Your task to perform on an android device: turn off sleep mode Image 0: 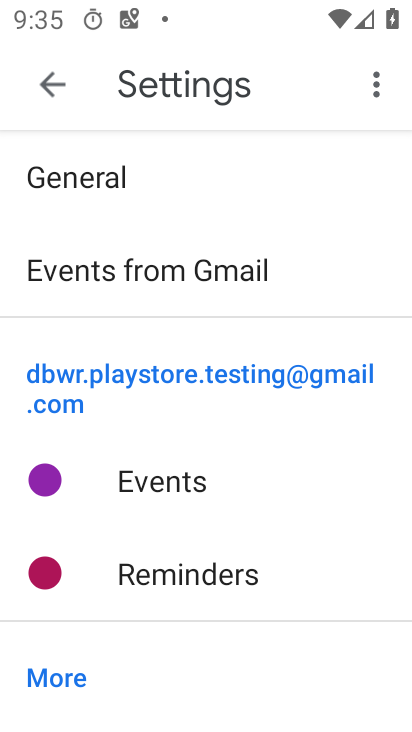
Step 0: press home button
Your task to perform on an android device: turn off sleep mode Image 1: 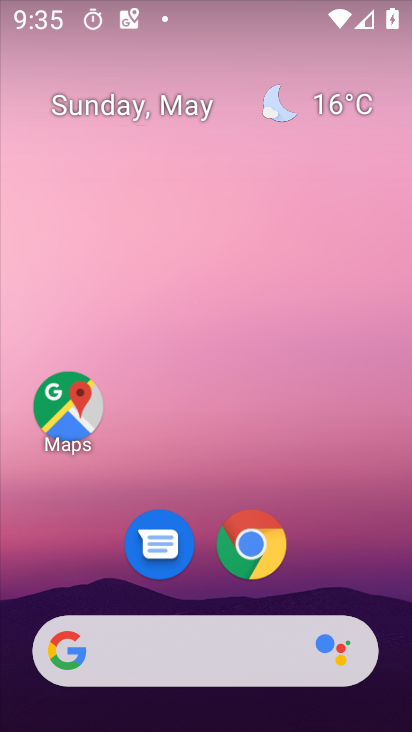
Step 1: drag from (313, 570) to (313, 136)
Your task to perform on an android device: turn off sleep mode Image 2: 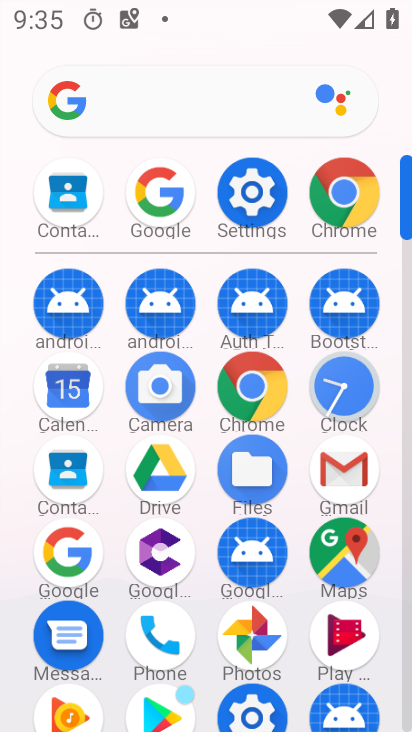
Step 2: click (240, 198)
Your task to perform on an android device: turn off sleep mode Image 3: 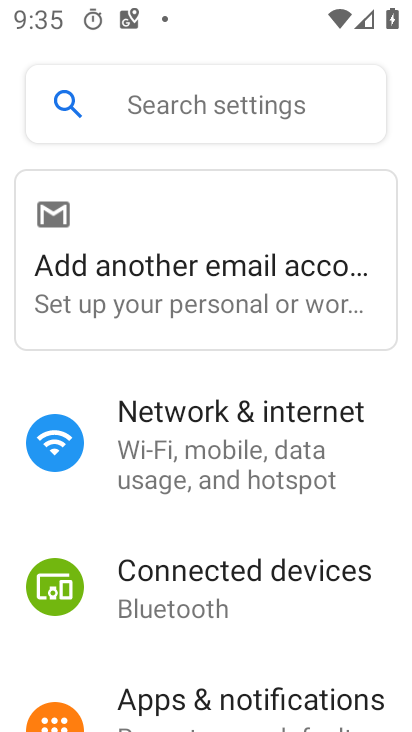
Step 3: task complete